Your task to perform on an android device: Search for vegetarian restaurants on Maps Image 0: 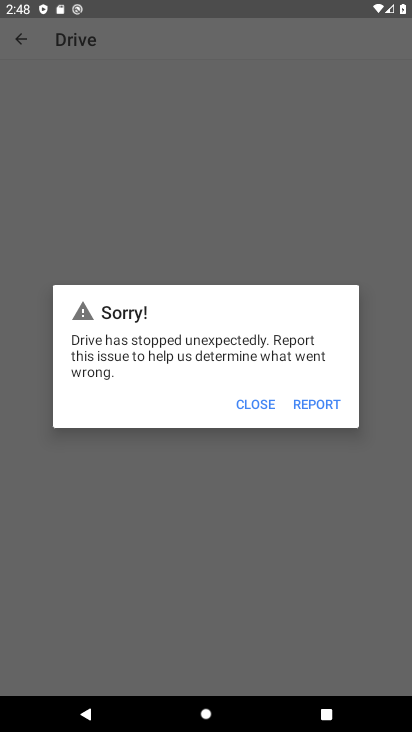
Step 0: press home button
Your task to perform on an android device: Search for vegetarian restaurants on Maps Image 1: 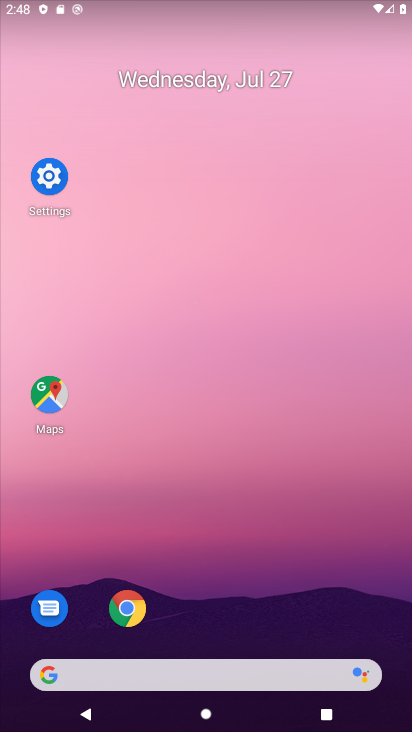
Step 1: click (19, 402)
Your task to perform on an android device: Search for vegetarian restaurants on Maps Image 2: 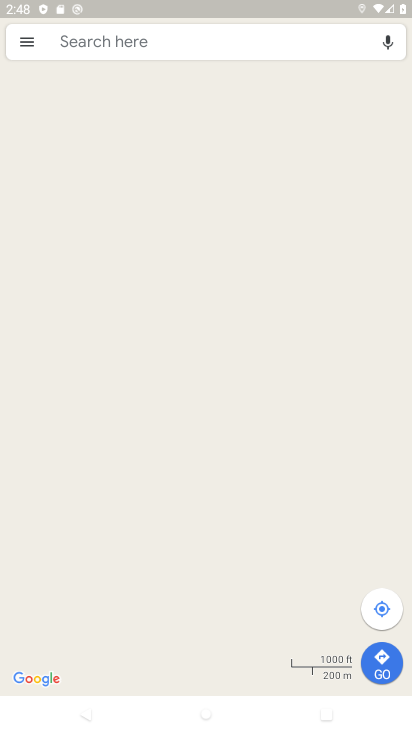
Step 2: click (143, 45)
Your task to perform on an android device: Search for vegetarian restaurants on Maps Image 3: 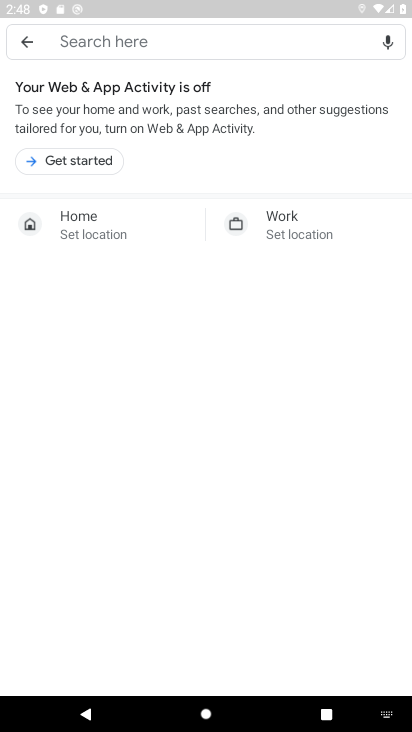
Step 3: click (80, 164)
Your task to perform on an android device: Search for vegetarian restaurants on Maps Image 4: 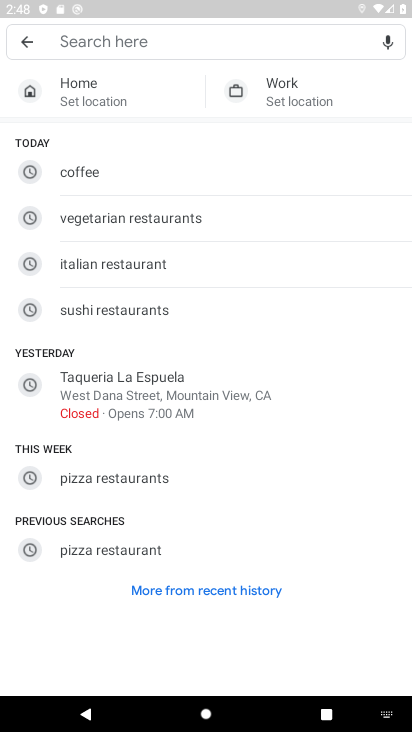
Step 4: click (154, 218)
Your task to perform on an android device: Search for vegetarian restaurants on Maps Image 5: 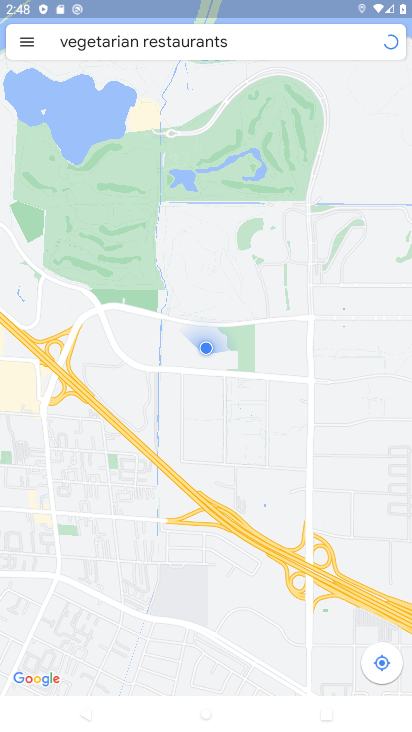
Step 5: task complete